Your task to perform on an android device: refresh tabs in the chrome app Image 0: 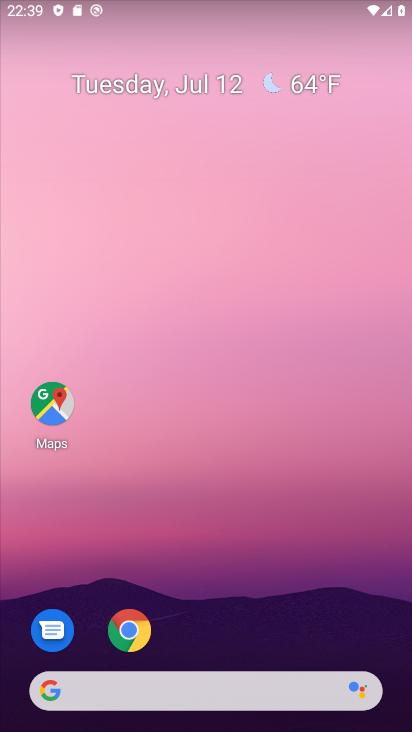
Step 0: drag from (366, 627) to (360, 105)
Your task to perform on an android device: refresh tabs in the chrome app Image 1: 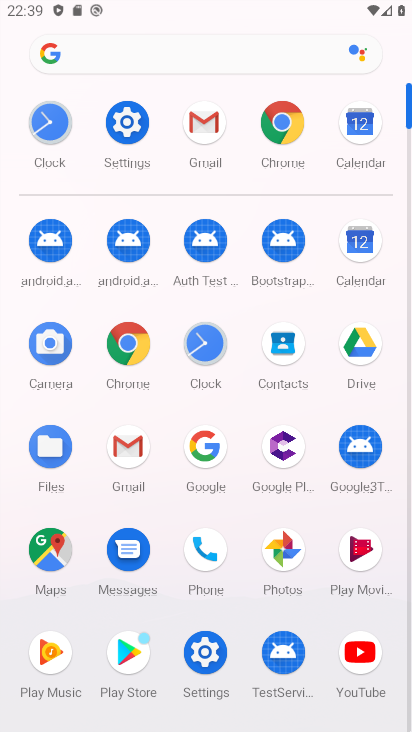
Step 1: click (134, 339)
Your task to perform on an android device: refresh tabs in the chrome app Image 2: 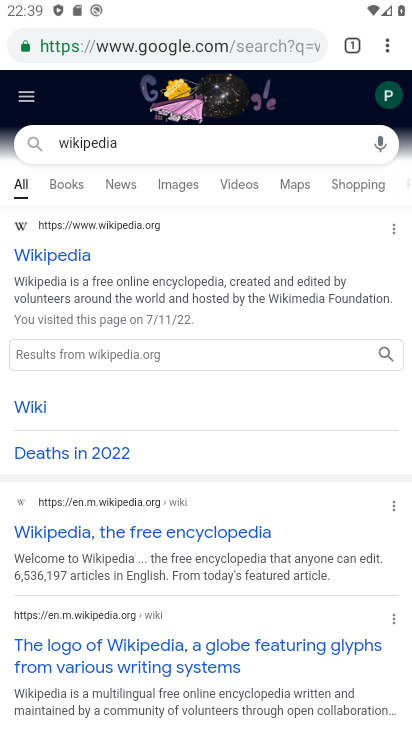
Step 2: click (393, 55)
Your task to perform on an android device: refresh tabs in the chrome app Image 3: 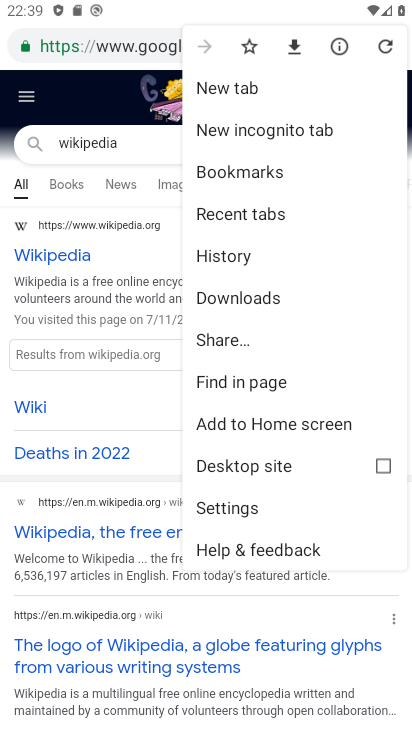
Step 3: click (378, 41)
Your task to perform on an android device: refresh tabs in the chrome app Image 4: 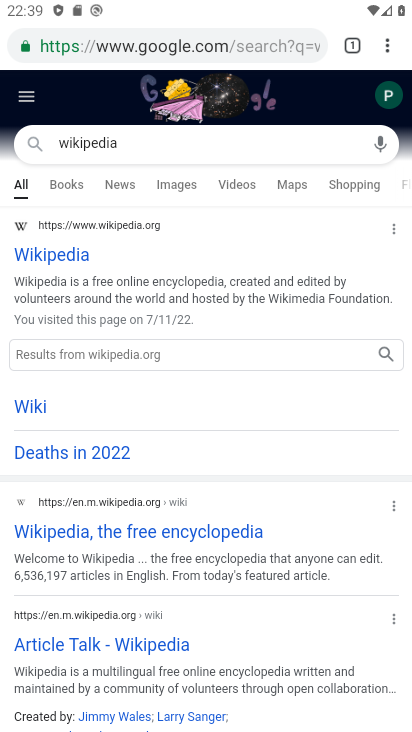
Step 4: task complete